Your task to perform on an android device: When is my next appointment? Image 0: 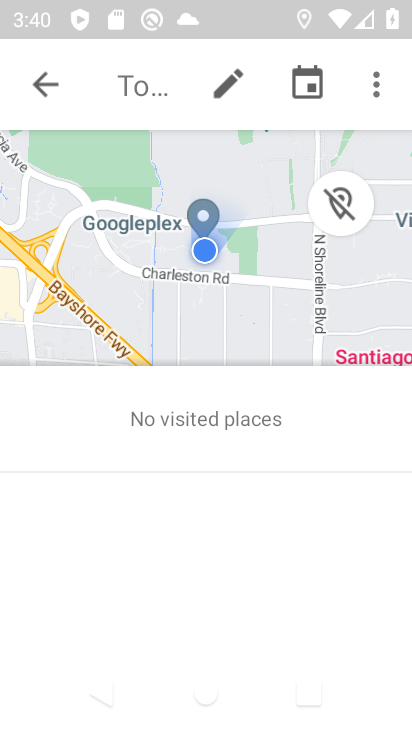
Step 0: press home button
Your task to perform on an android device: When is my next appointment? Image 1: 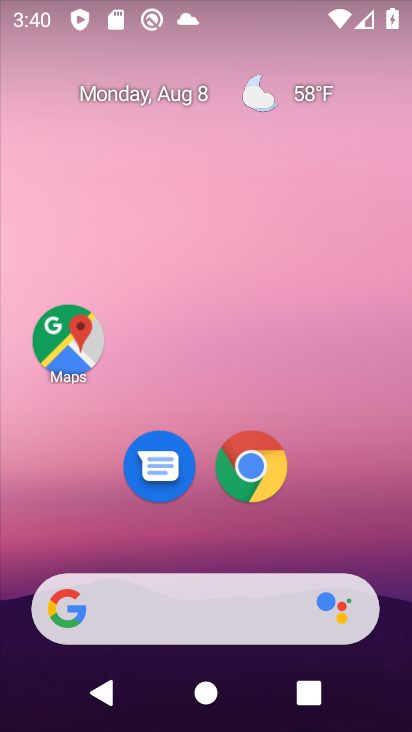
Step 1: drag from (223, 578) to (217, 217)
Your task to perform on an android device: When is my next appointment? Image 2: 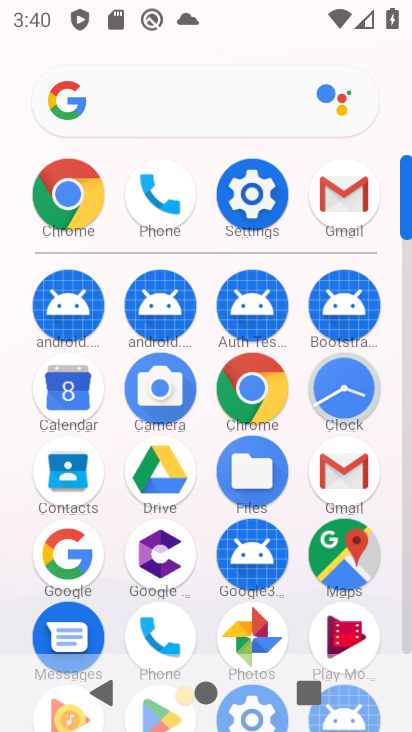
Step 2: click (63, 374)
Your task to perform on an android device: When is my next appointment? Image 3: 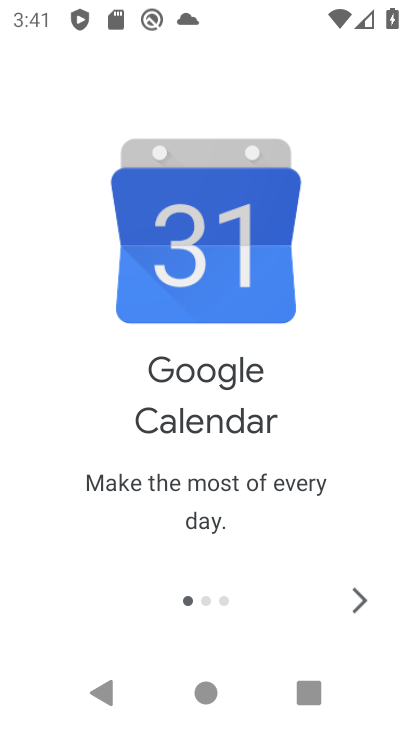
Step 3: click (358, 603)
Your task to perform on an android device: When is my next appointment? Image 4: 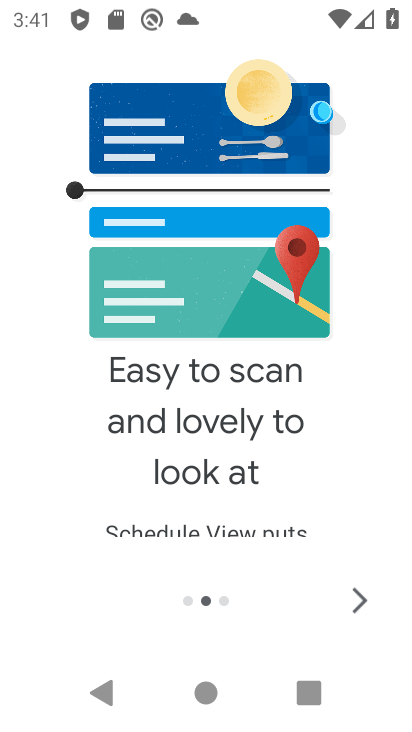
Step 4: click (358, 603)
Your task to perform on an android device: When is my next appointment? Image 5: 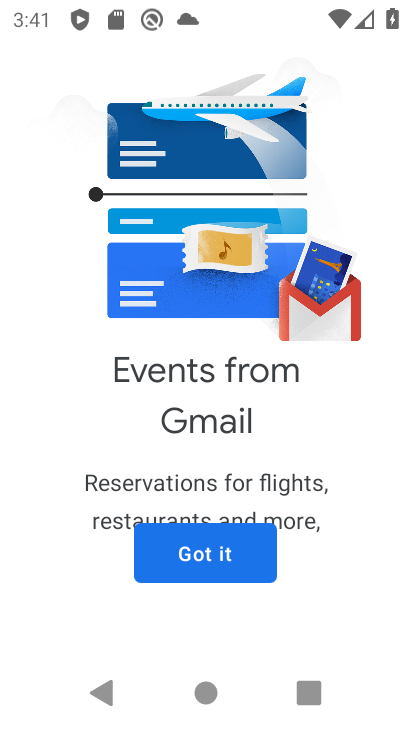
Step 5: click (358, 603)
Your task to perform on an android device: When is my next appointment? Image 6: 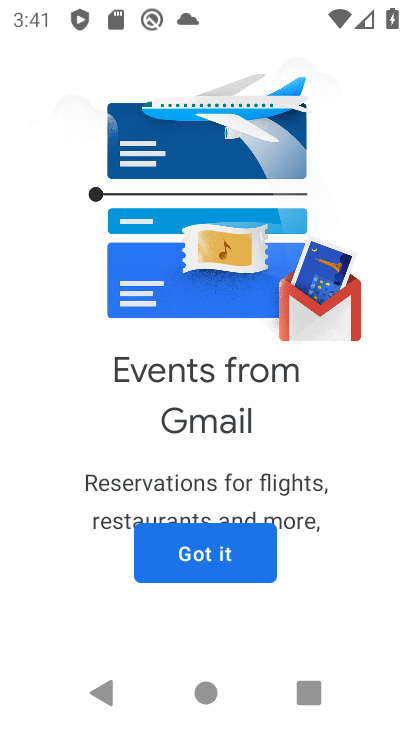
Step 6: click (261, 561)
Your task to perform on an android device: When is my next appointment? Image 7: 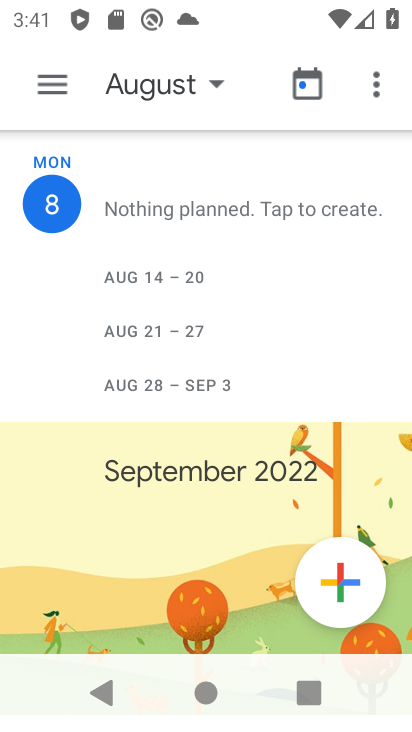
Step 7: click (34, 82)
Your task to perform on an android device: When is my next appointment? Image 8: 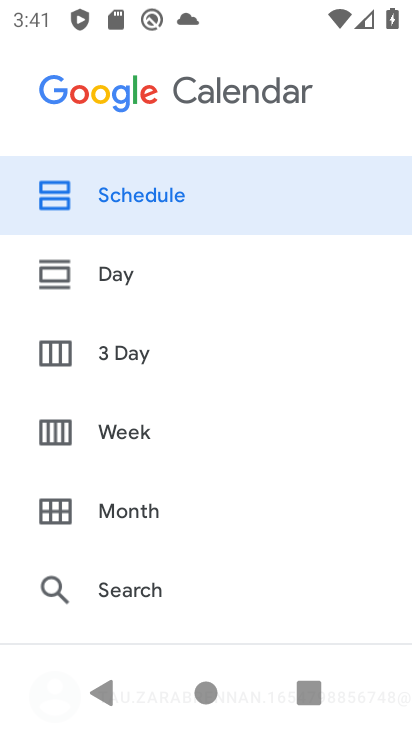
Step 8: click (153, 504)
Your task to perform on an android device: When is my next appointment? Image 9: 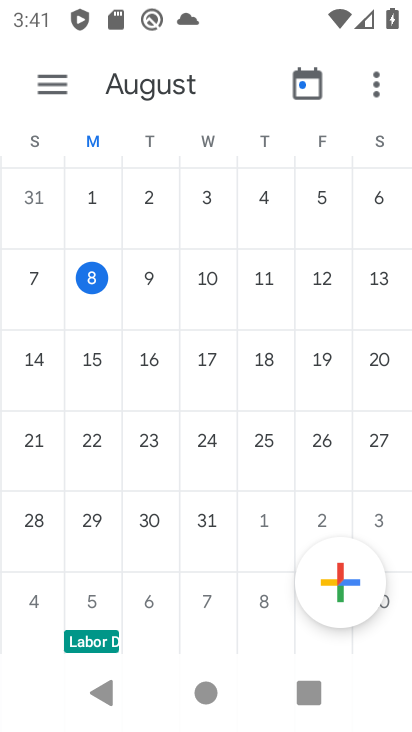
Step 9: click (163, 266)
Your task to perform on an android device: When is my next appointment? Image 10: 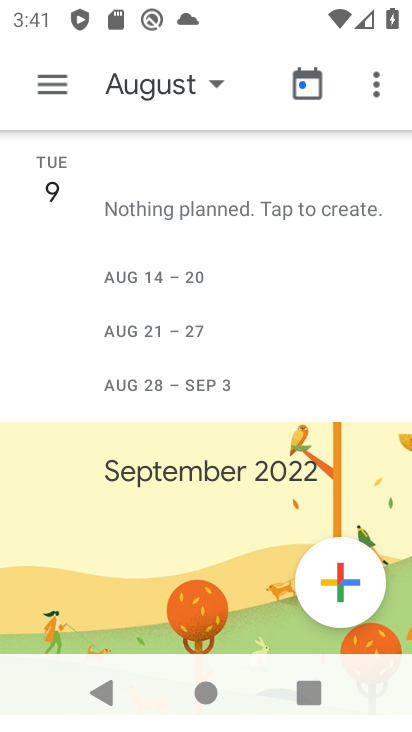
Step 10: task complete